Your task to perform on an android device: change the clock display to digital Image 0: 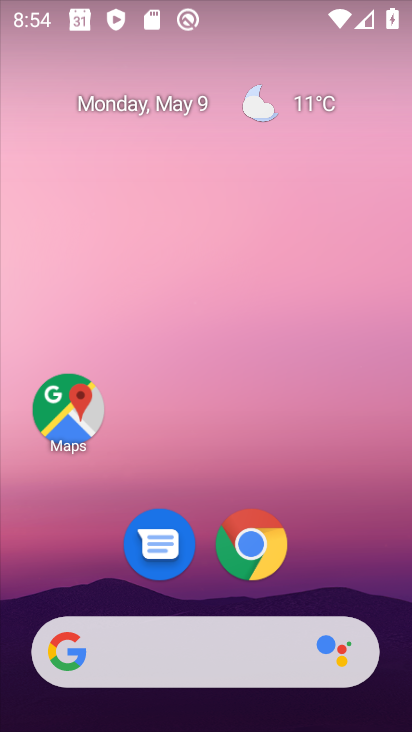
Step 0: drag from (387, 610) to (370, 187)
Your task to perform on an android device: change the clock display to digital Image 1: 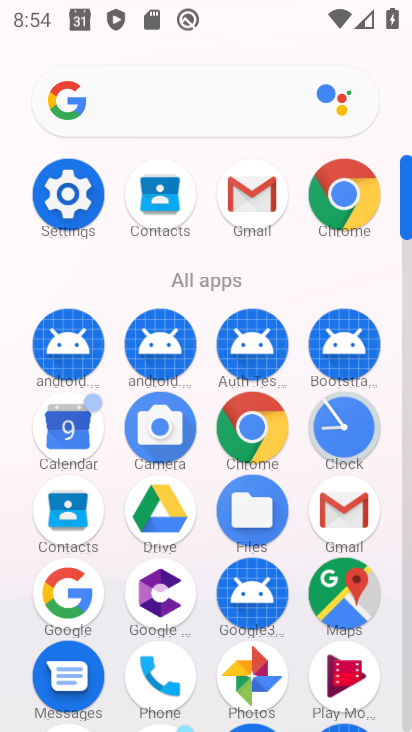
Step 1: click (331, 435)
Your task to perform on an android device: change the clock display to digital Image 2: 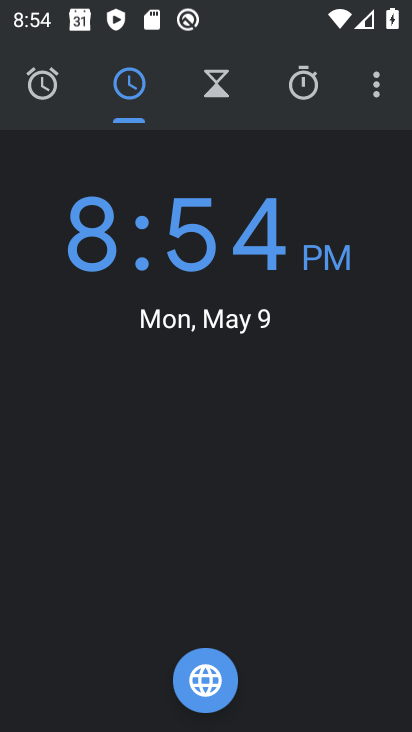
Step 2: click (372, 84)
Your task to perform on an android device: change the clock display to digital Image 3: 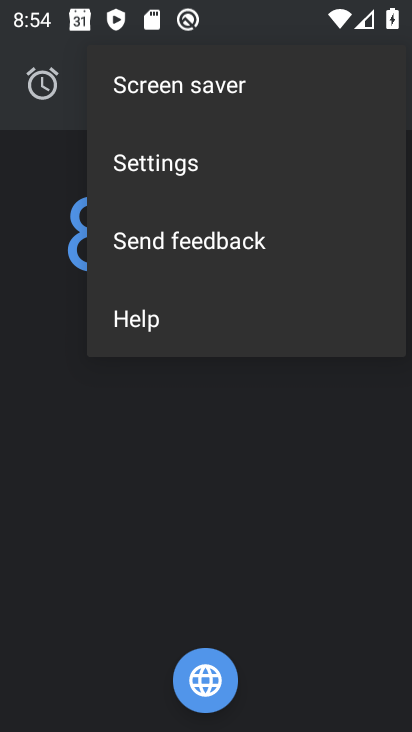
Step 3: click (184, 169)
Your task to perform on an android device: change the clock display to digital Image 4: 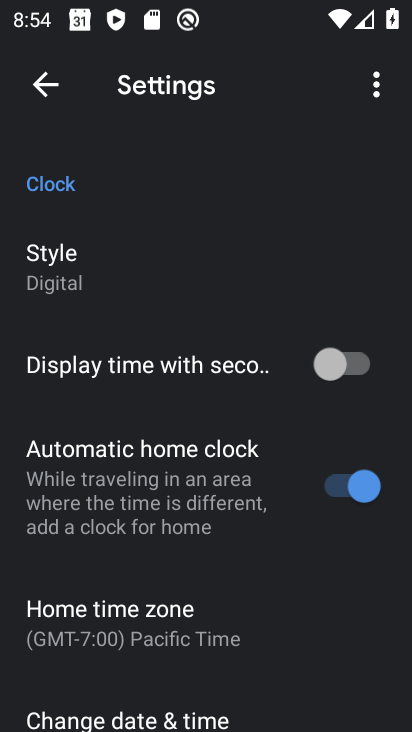
Step 4: click (68, 277)
Your task to perform on an android device: change the clock display to digital Image 5: 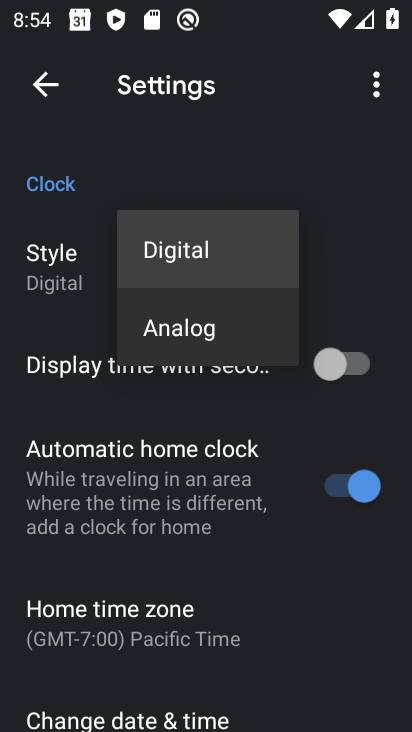
Step 5: click (169, 330)
Your task to perform on an android device: change the clock display to digital Image 6: 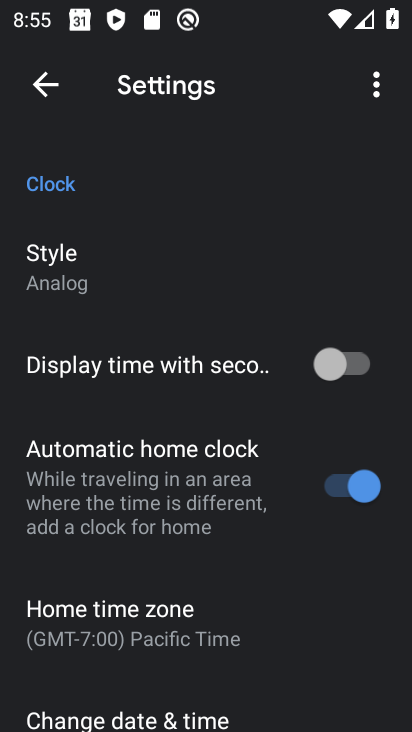
Step 6: task complete